Your task to perform on an android device: change the clock style Image 0: 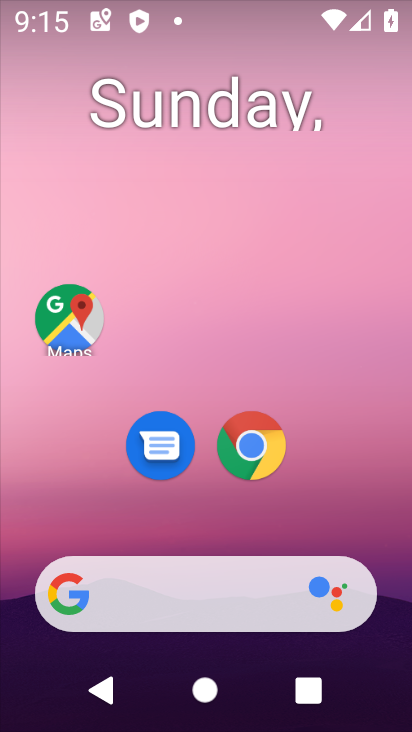
Step 0: drag from (395, 604) to (345, 160)
Your task to perform on an android device: change the clock style Image 1: 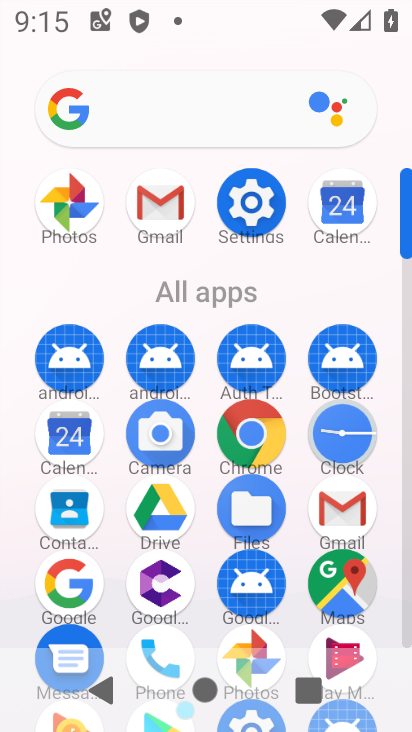
Step 1: click (406, 627)
Your task to perform on an android device: change the clock style Image 2: 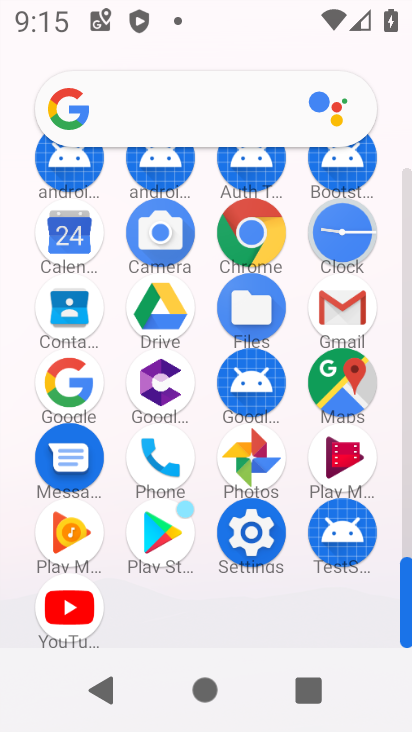
Step 2: click (339, 226)
Your task to perform on an android device: change the clock style Image 3: 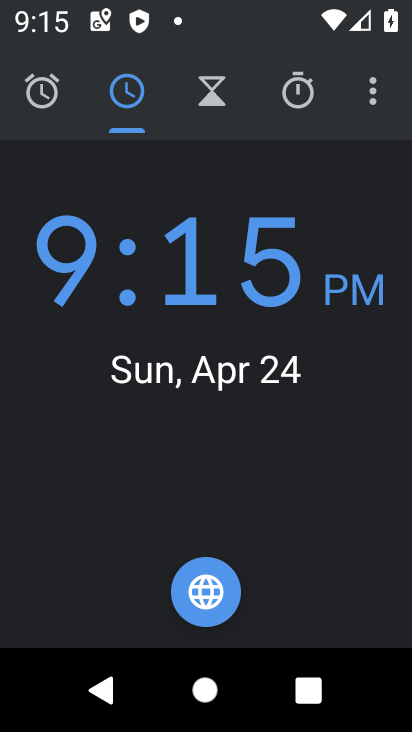
Step 3: click (369, 101)
Your task to perform on an android device: change the clock style Image 4: 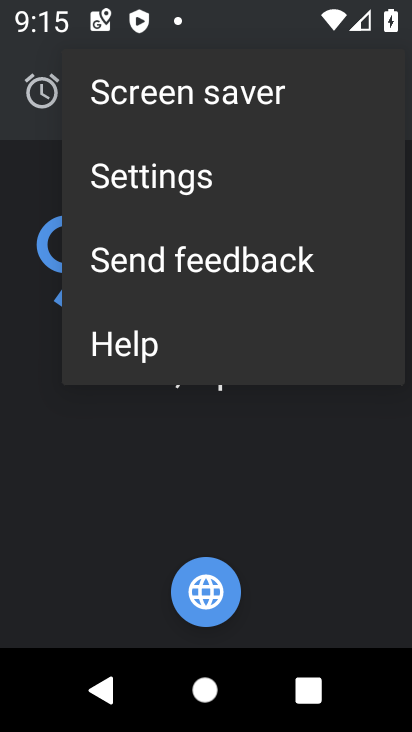
Step 4: click (118, 175)
Your task to perform on an android device: change the clock style Image 5: 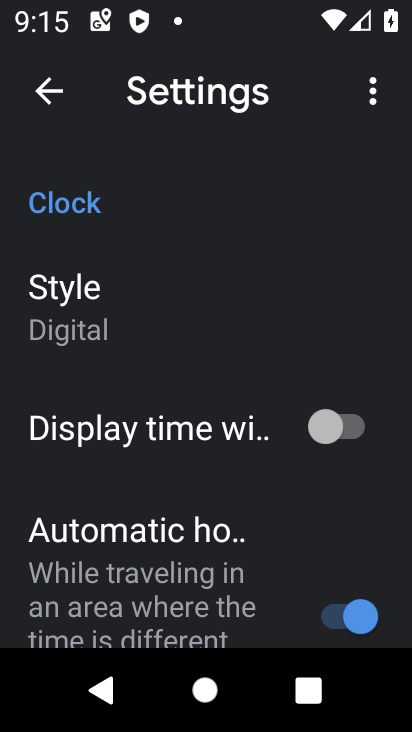
Step 5: click (71, 294)
Your task to perform on an android device: change the clock style Image 6: 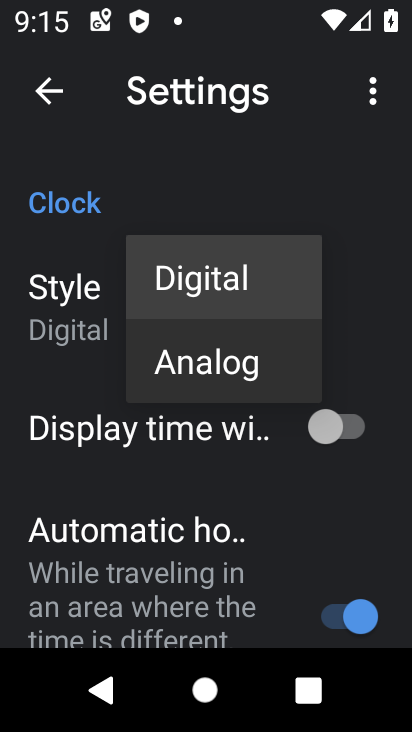
Step 6: click (208, 371)
Your task to perform on an android device: change the clock style Image 7: 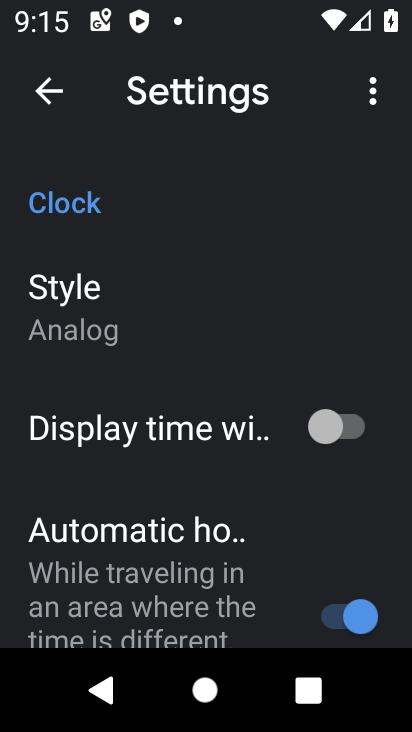
Step 7: task complete